Your task to perform on an android device: Open eBay Image 0: 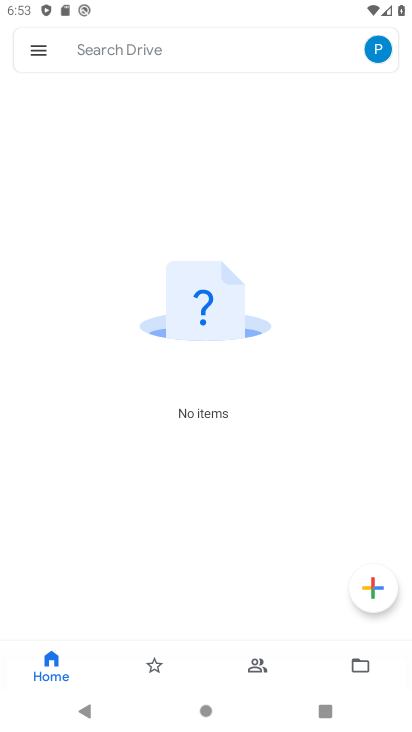
Step 0: press home button
Your task to perform on an android device: Open eBay Image 1: 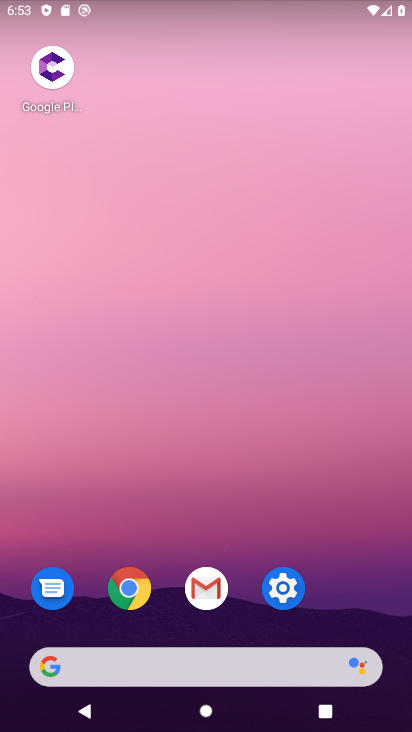
Step 1: click (130, 589)
Your task to perform on an android device: Open eBay Image 2: 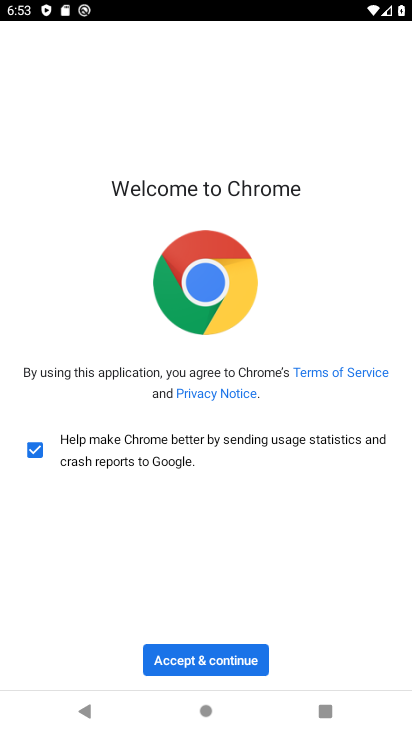
Step 2: click (204, 656)
Your task to perform on an android device: Open eBay Image 3: 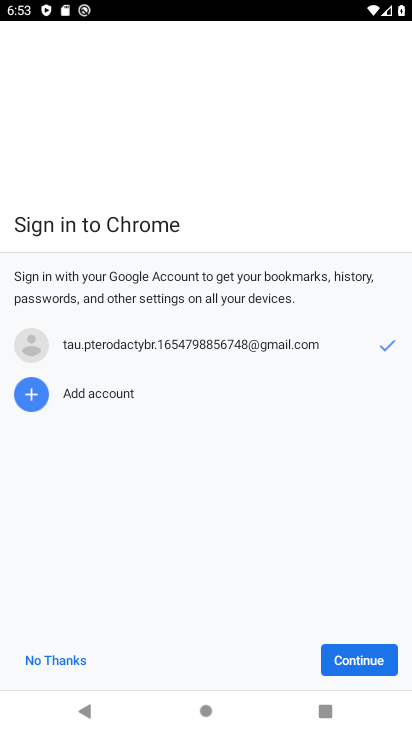
Step 3: click (343, 654)
Your task to perform on an android device: Open eBay Image 4: 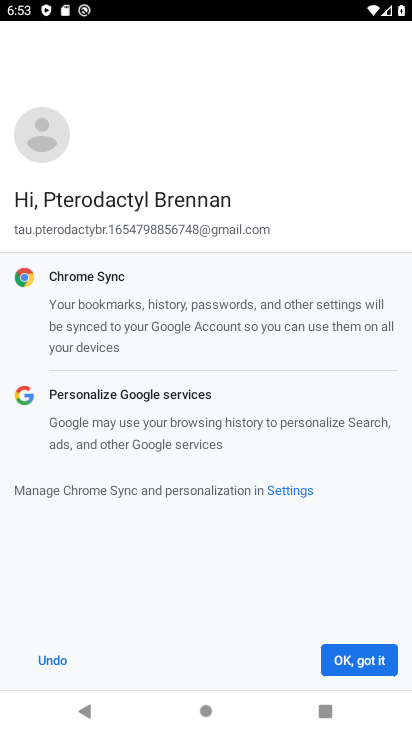
Step 4: click (340, 650)
Your task to perform on an android device: Open eBay Image 5: 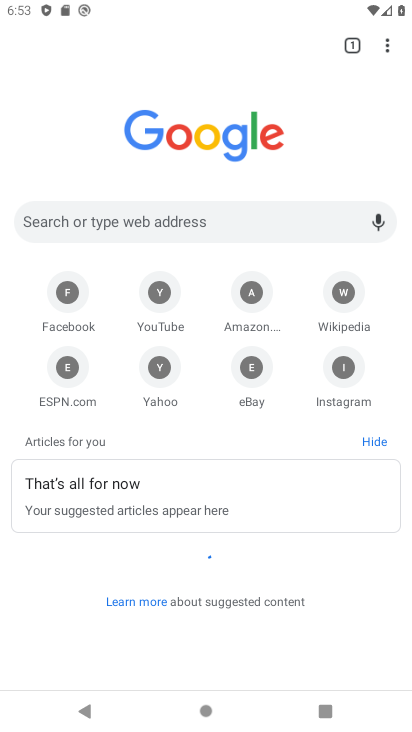
Step 5: click (247, 391)
Your task to perform on an android device: Open eBay Image 6: 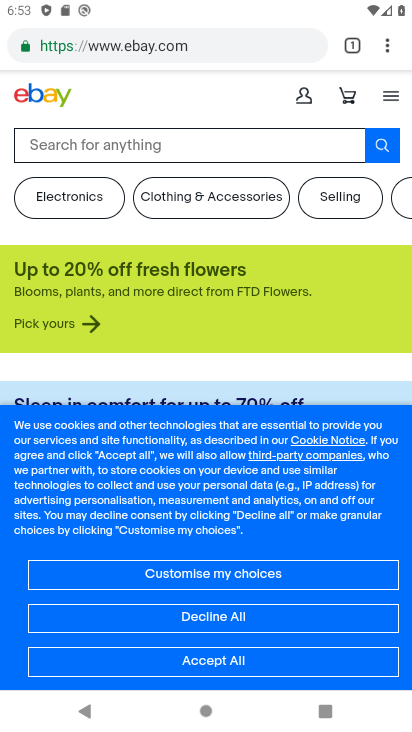
Step 6: task complete